Your task to perform on an android device: turn off location Image 0: 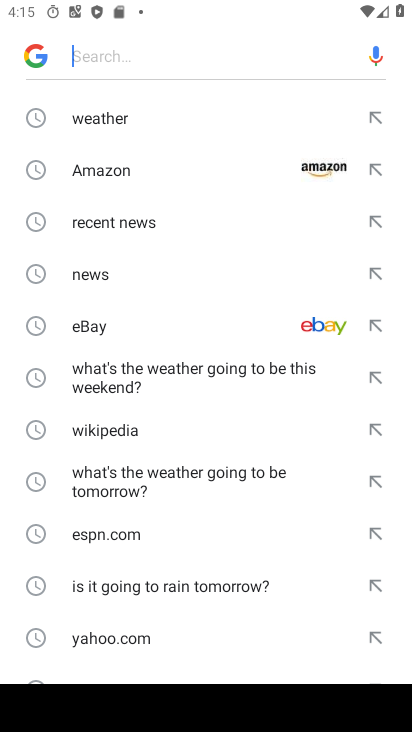
Step 0: press home button
Your task to perform on an android device: turn off location Image 1: 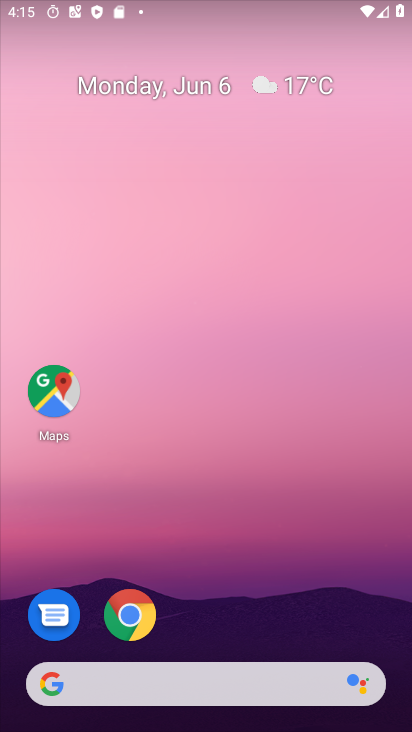
Step 1: drag from (326, 675) to (386, 18)
Your task to perform on an android device: turn off location Image 2: 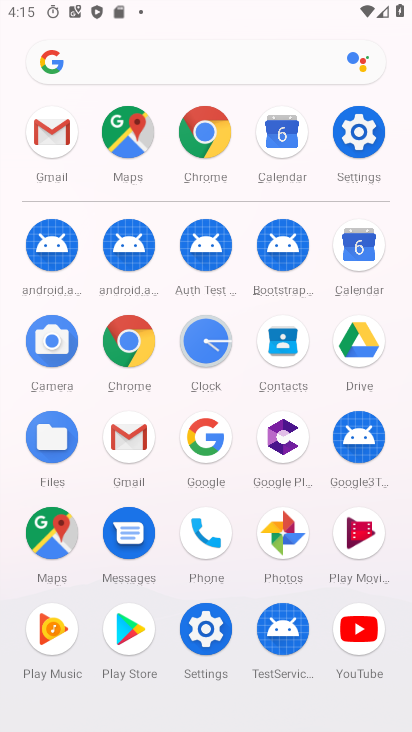
Step 2: click (365, 124)
Your task to perform on an android device: turn off location Image 3: 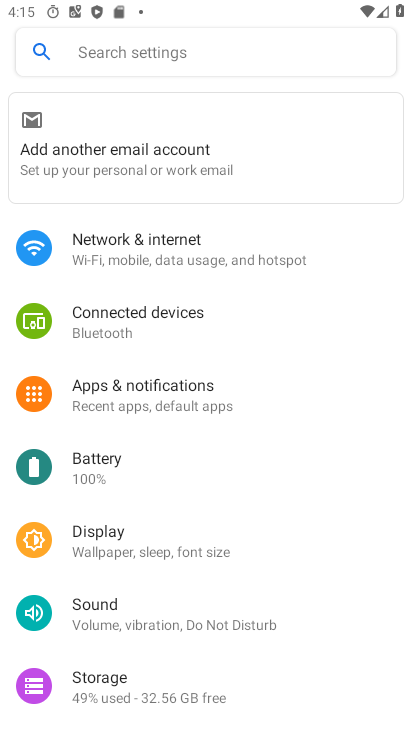
Step 3: drag from (248, 357) to (265, 222)
Your task to perform on an android device: turn off location Image 4: 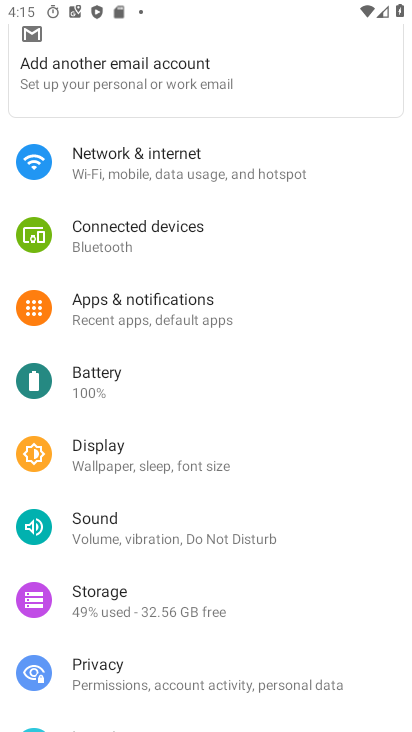
Step 4: drag from (159, 675) to (243, 215)
Your task to perform on an android device: turn off location Image 5: 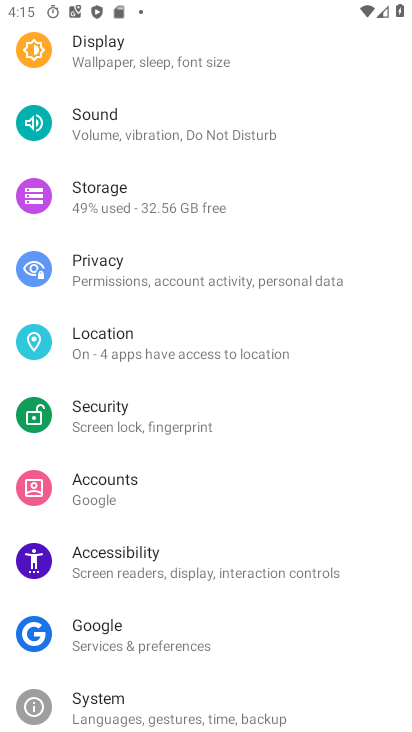
Step 5: click (172, 357)
Your task to perform on an android device: turn off location Image 6: 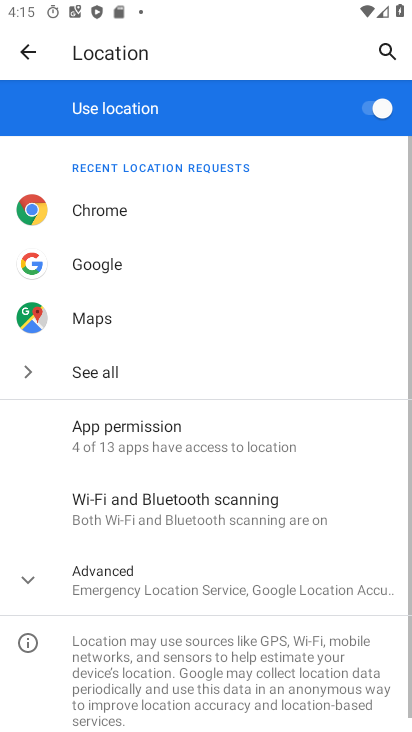
Step 6: click (184, 580)
Your task to perform on an android device: turn off location Image 7: 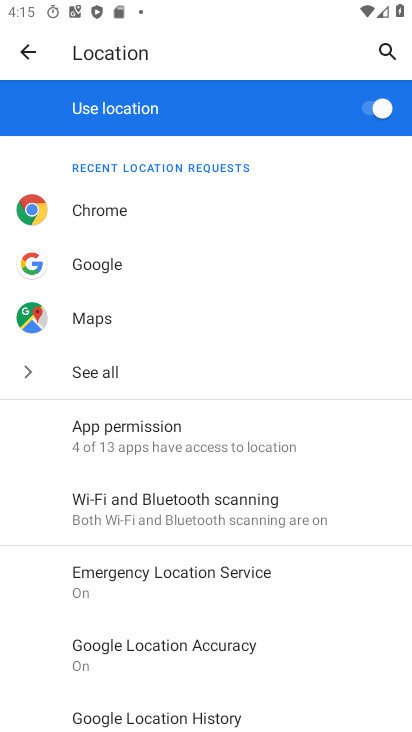
Step 7: click (379, 110)
Your task to perform on an android device: turn off location Image 8: 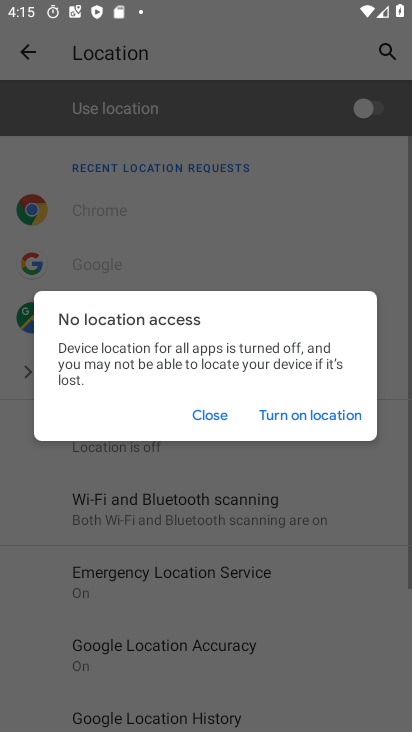
Step 8: task complete